Your task to perform on an android device: How do I get to the nearest Verizon Store? Image 0: 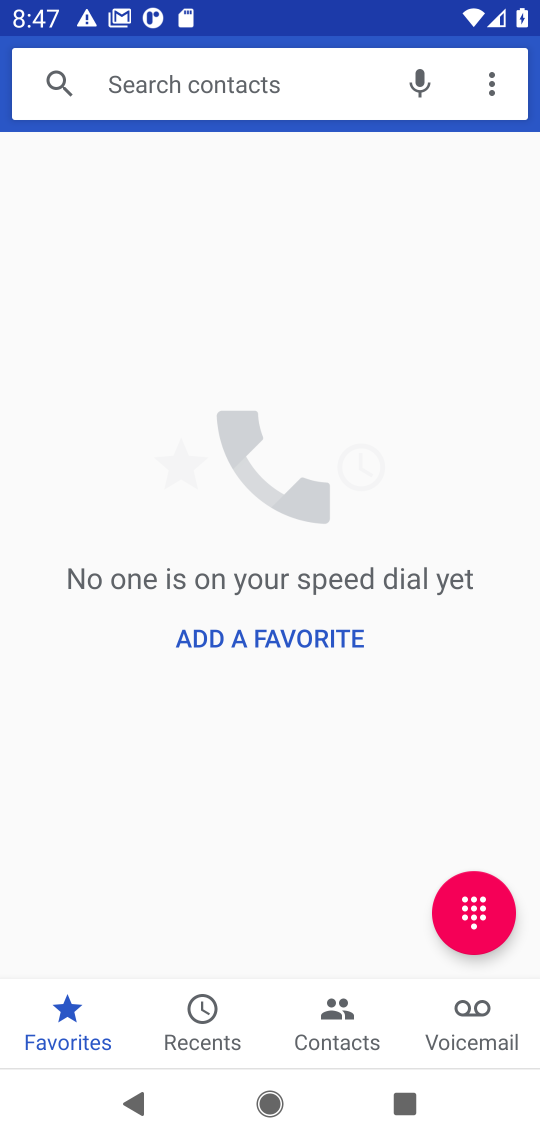
Step 0: press home button
Your task to perform on an android device: How do I get to the nearest Verizon Store? Image 1: 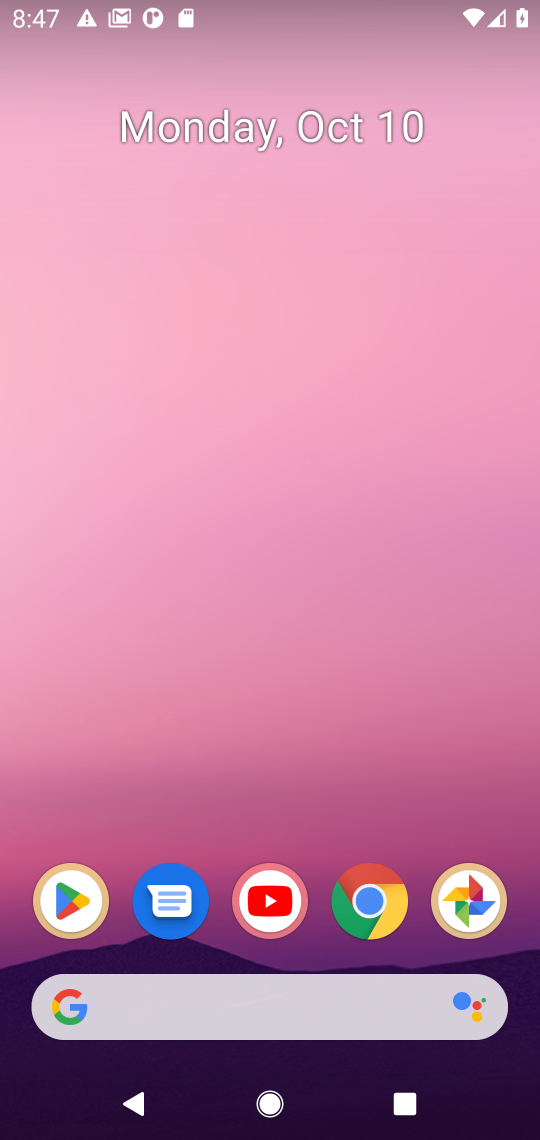
Step 1: click (258, 996)
Your task to perform on an android device: How do I get to the nearest Verizon Store? Image 2: 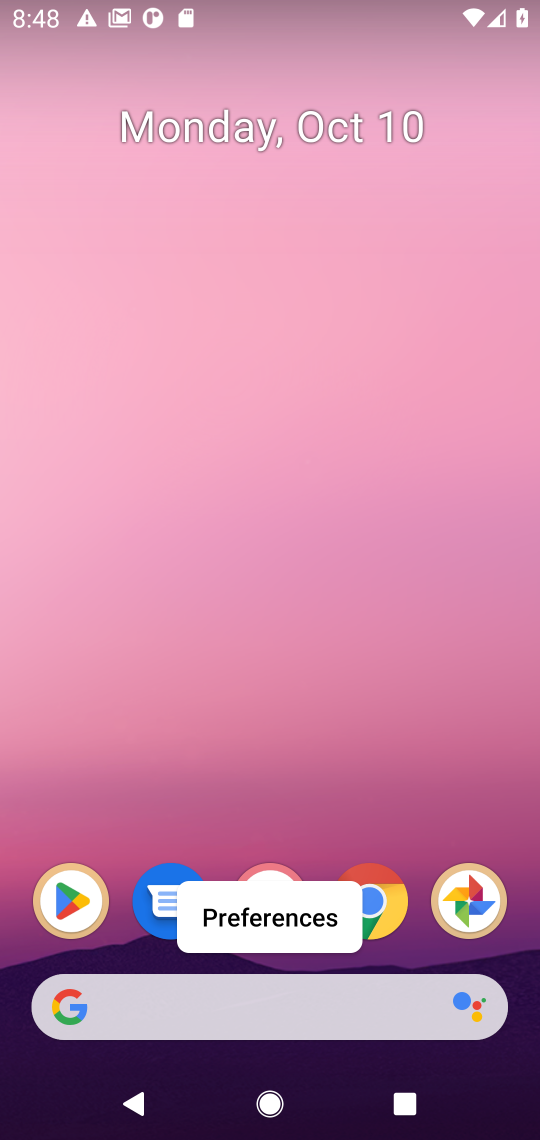
Step 2: click (294, 1004)
Your task to perform on an android device: How do I get to the nearest Verizon Store? Image 3: 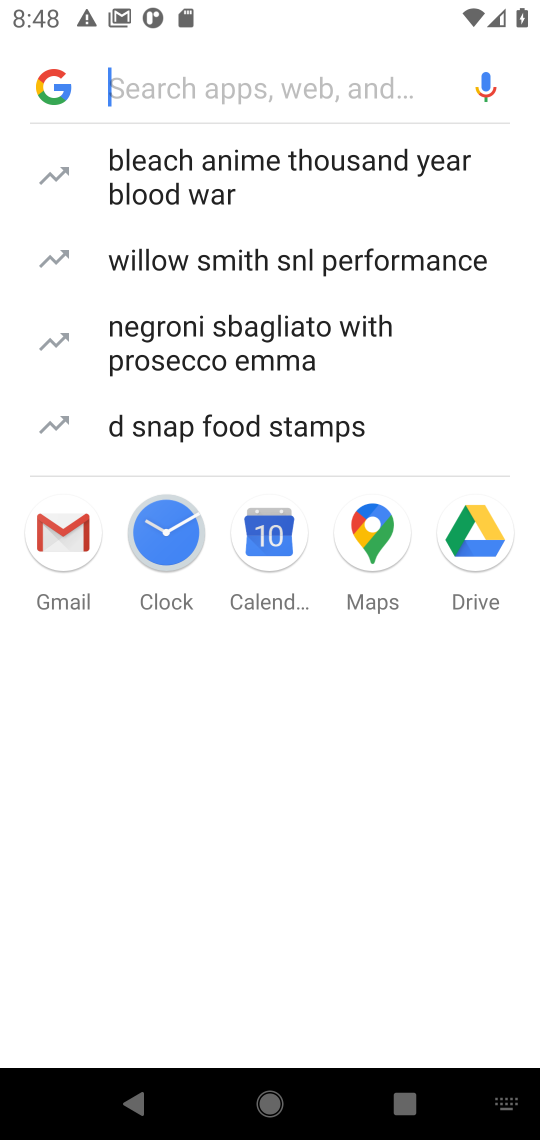
Step 3: press enter
Your task to perform on an android device: How do I get to the nearest Verizon Store? Image 4: 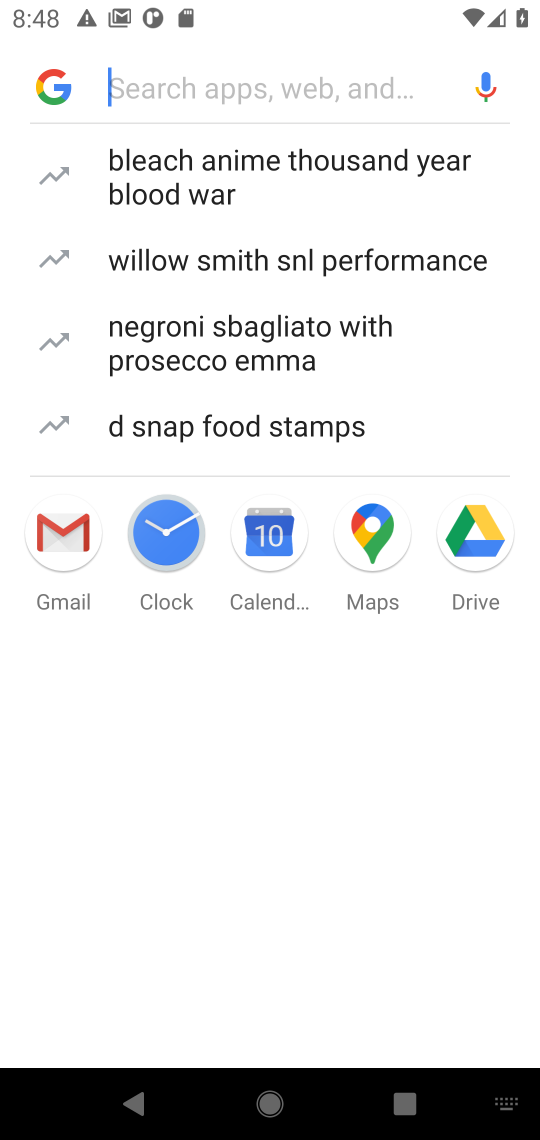
Step 4: type "How do I get to the nearest Verizon Store"
Your task to perform on an android device: How do I get to the nearest Verizon Store? Image 5: 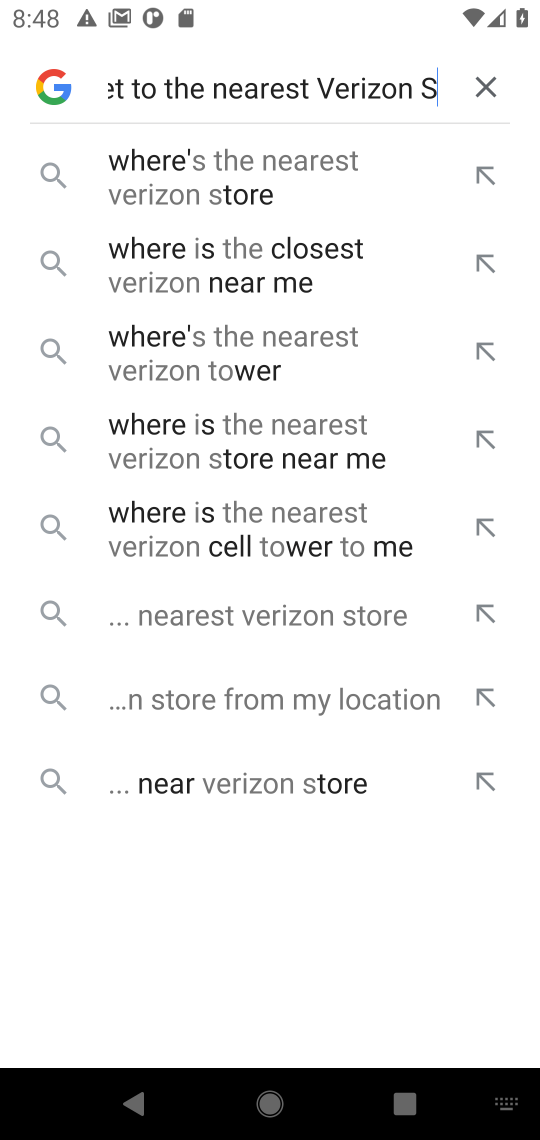
Step 5: press enter
Your task to perform on an android device: How do I get to the nearest Verizon Store? Image 6: 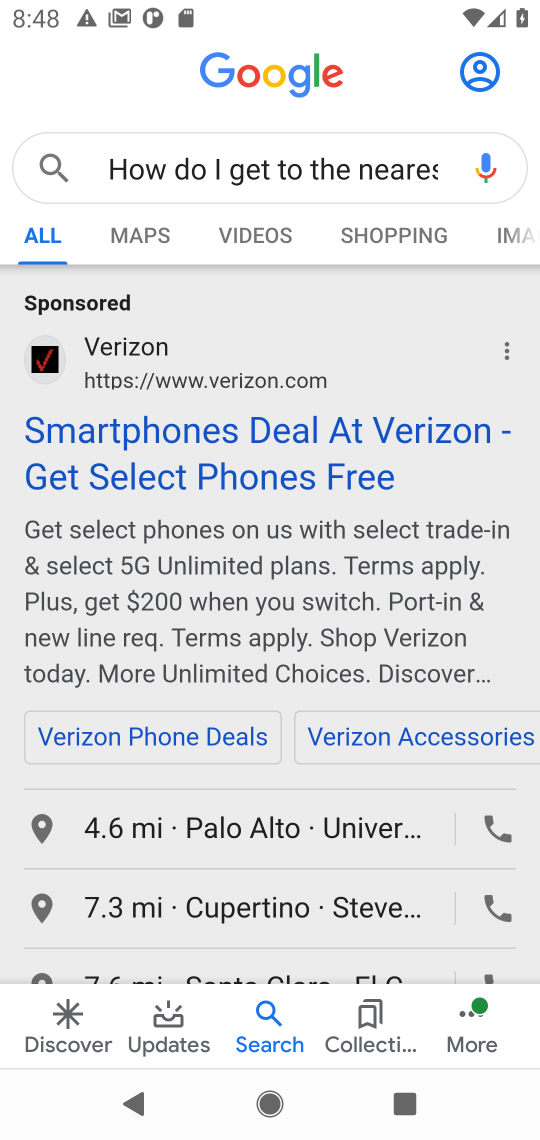
Step 6: task complete